Your task to perform on an android device: Do I have any events tomorrow? Image 0: 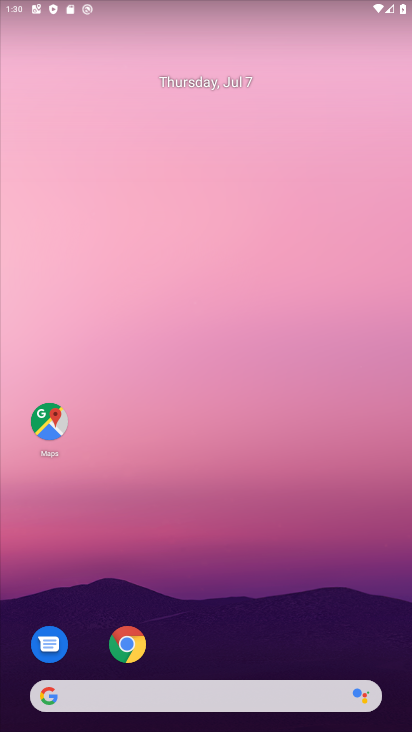
Step 0: drag from (190, 707) to (219, 242)
Your task to perform on an android device: Do I have any events tomorrow? Image 1: 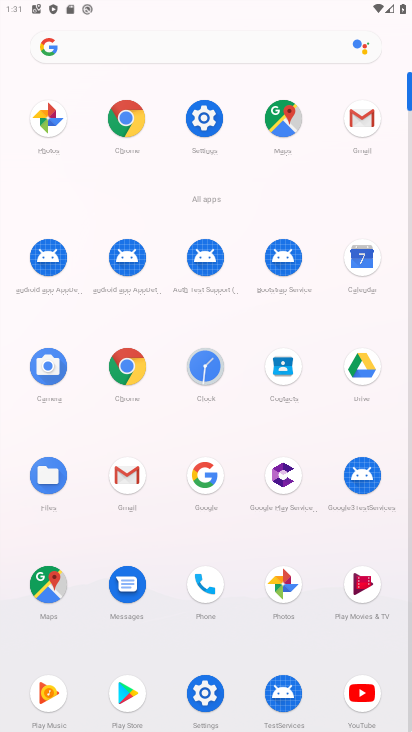
Step 1: click (374, 277)
Your task to perform on an android device: Do I have any events tomorrow? Image 2: 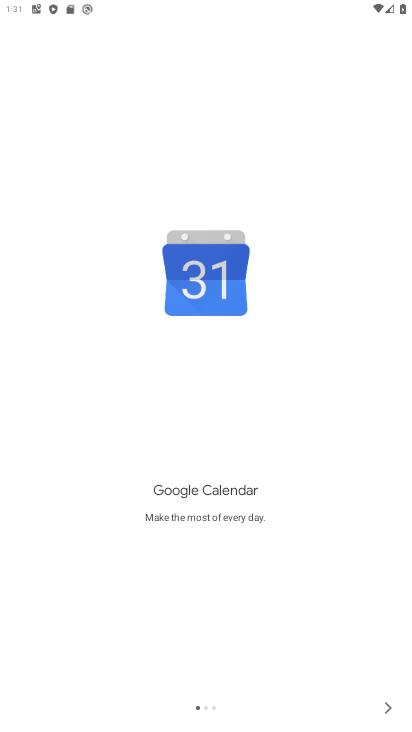
Step 2: click (359, 686)
Your task to perform on an android device: Do I have any events tomorrow? Image 3: 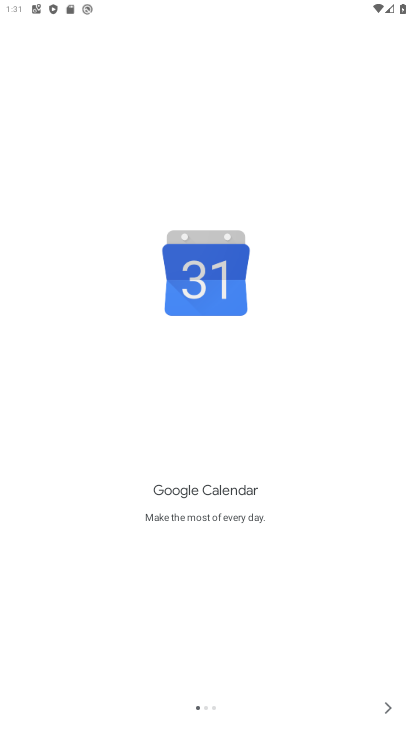
Step 3: click (386, 709)
Your task to perform on an android device: Do I have any events tomorrow? Image 4: 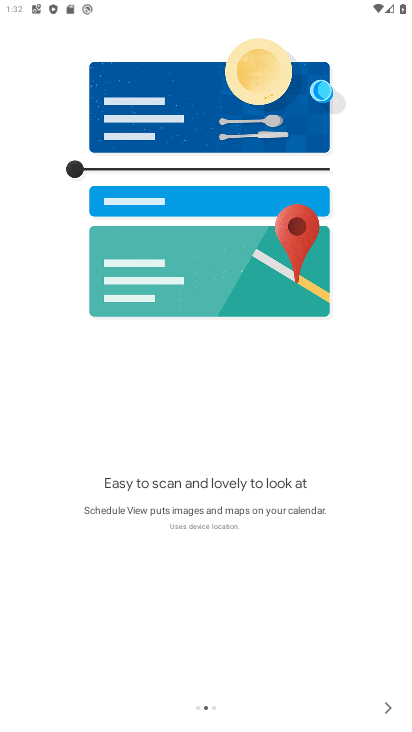
Step 4: click (387, 708)
Your task to perform on an android device: Do I have any events tomorrow? Image 5: 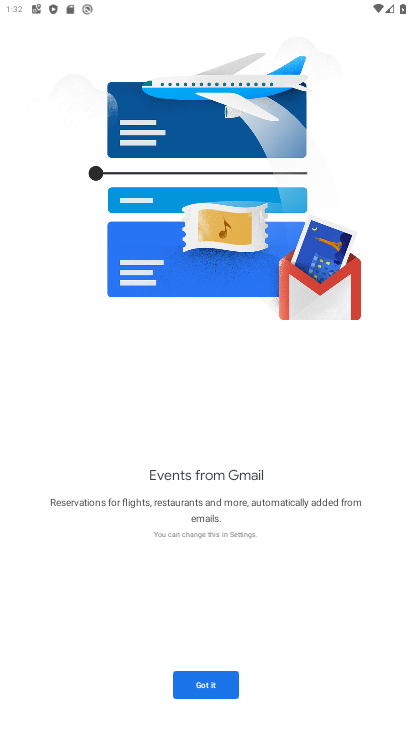
Step 5: click (213, 683)
Your task to perform on an android device: Do I have any events tomorrow? Image 6: 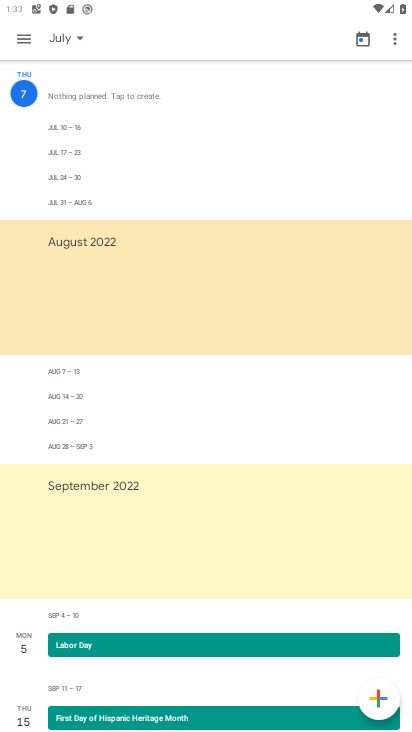
Step 6: click (78, 40)
Your task to perform on an android device: Do I have any events tomorrow? Image 7: 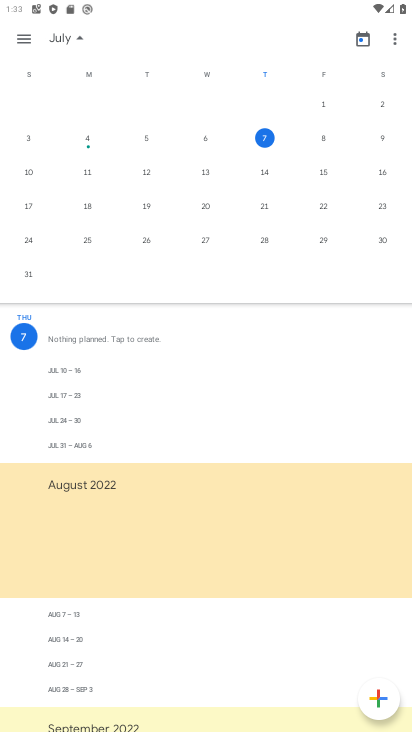
Step 7: click (316, 137)
Your task to perform on an android device: Do I have any events tomorrow? Image 8: 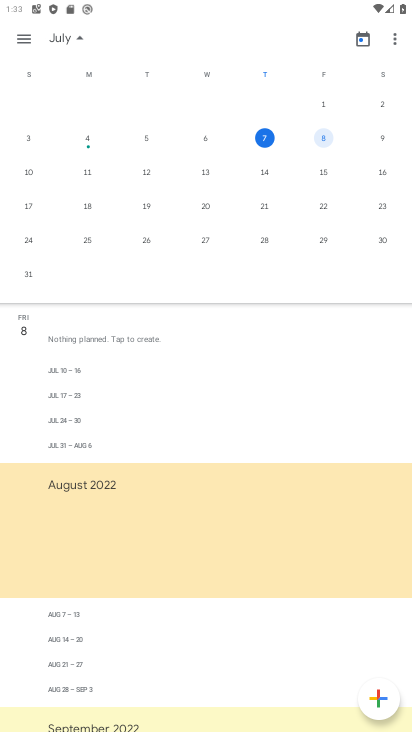
Step 8: click (61, 44)
Your task to perform on an android device: Do I have any events tomorrow? Image 9: 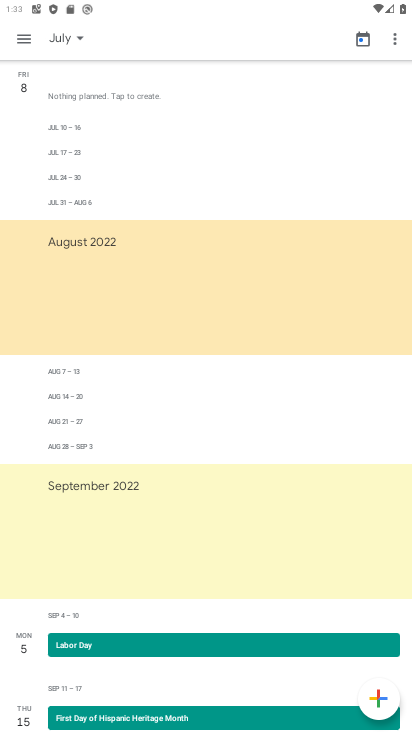
Step 9: task complete